Your task to perform on an android device: Is it going to rain today? Image 0: 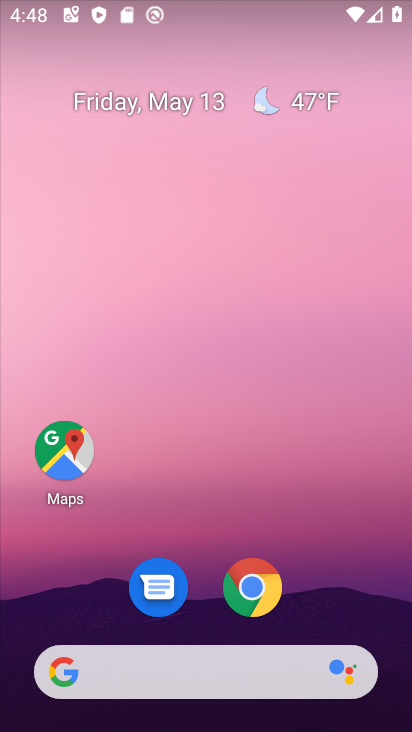
Step 0: click (250, 580)
Your task to perform on an android device: Is it going to rain today? Image 1: 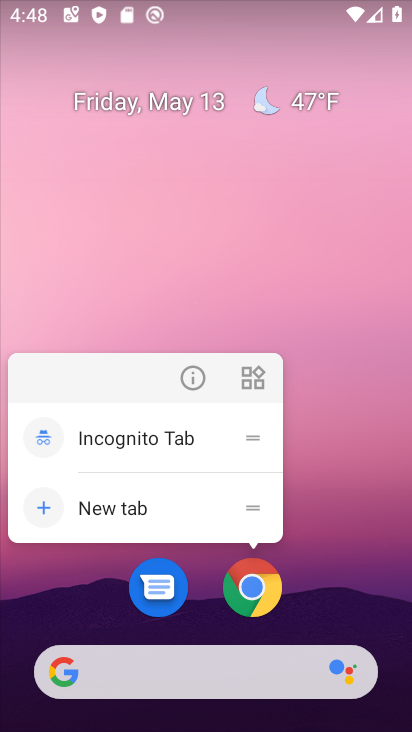
Step 1: click (265, 583)
Your task to perform on an android device: Is it going to rain today? Image 2: 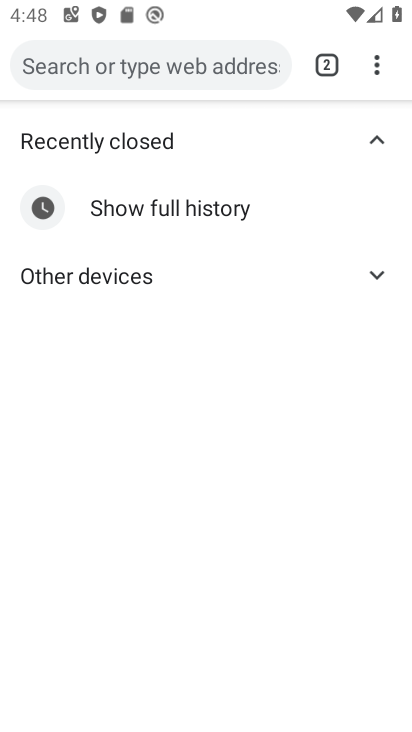
Step 2: click (67, 61)
Your task to perform on an android device: Is it going to rain today? Image 3: 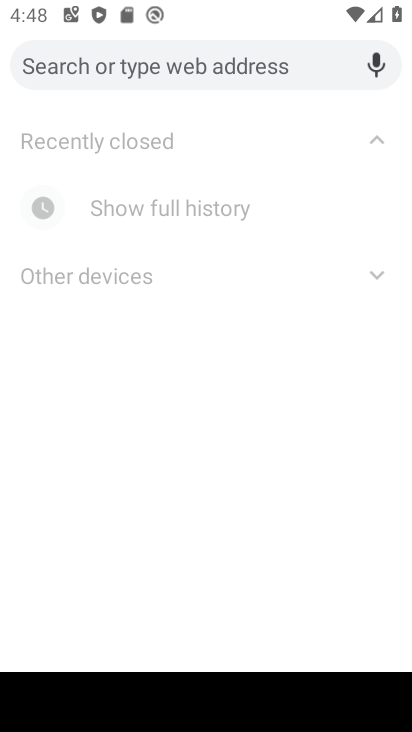
Step 3: type "Is it going to rain today?"
Your task to perform on an android device: Is it going to rain today? Image 4: 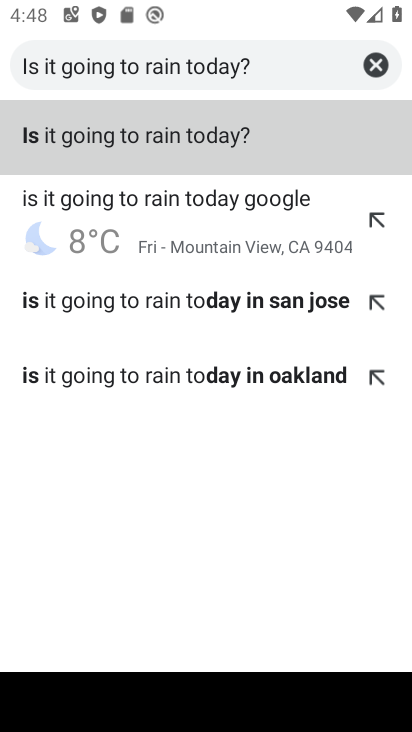
Step 4: click (46, 127)
Your task to perform on an android device: Is it going to rain today? Image 5: 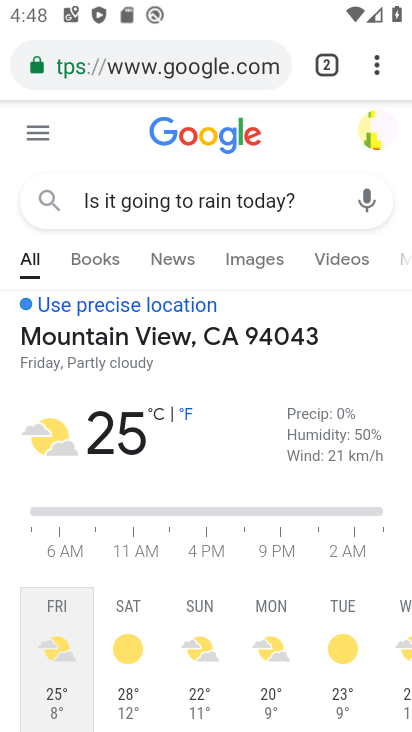
Step 5: task complete